Your task to perform on an android device: Open Youtube and go to "Your channel" Image 0: 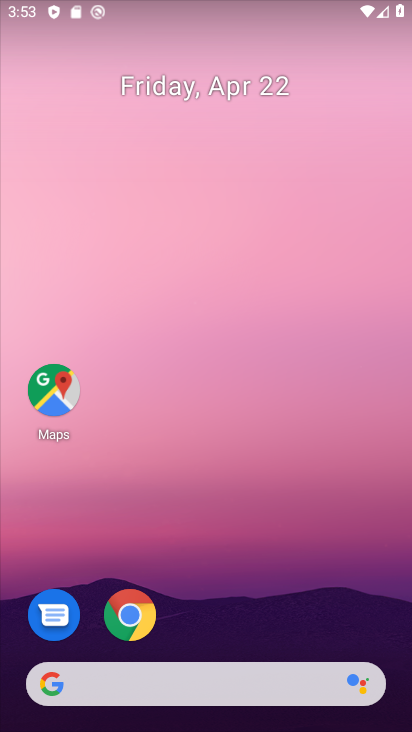
Step 0: drag from (304, 598) to (329, 183)
Your task to perform on an android device: Open Youtube and go to "Your channel" Image 1: 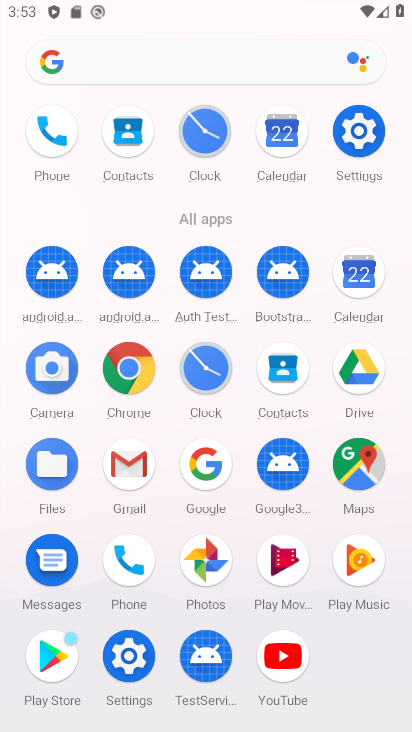
Step 1: click (286, 670)
Your task to perform on an android device: Open Youtube and go to "Your channel" Image 2: 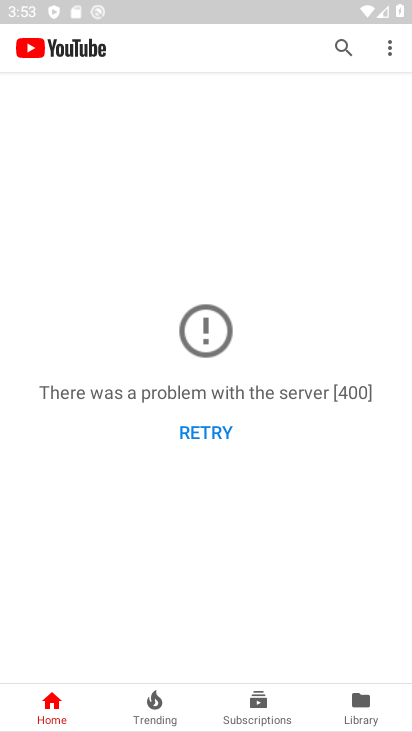
Step 2: click (387, 59)
Your task to perform on an android device: Open Youtube and go to "Your channel" Image 3: 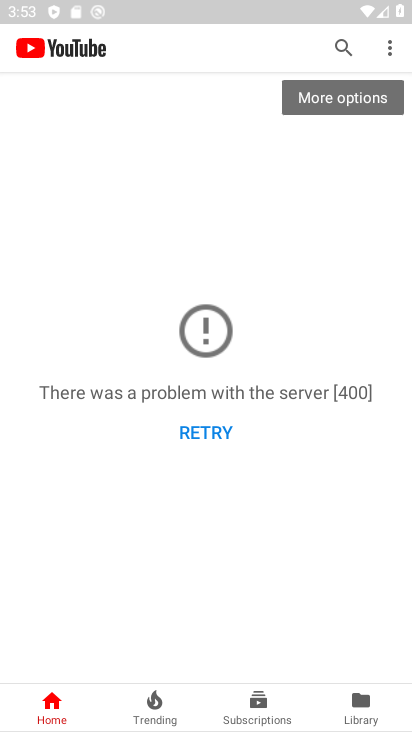
Step 3: click (392, 48)
Your task to perform on an android device: Open Youtube and go to "Your channel" Image 4: 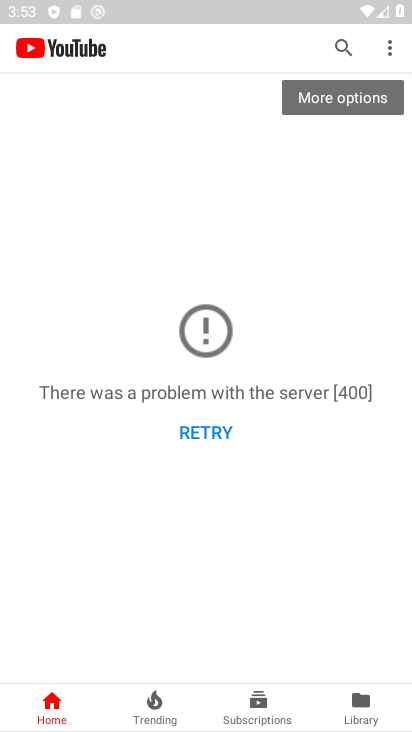
Step 4: click (390, 56)
Your task to perform on an android device: Open Youtube and go to "Your channel" Image 5: 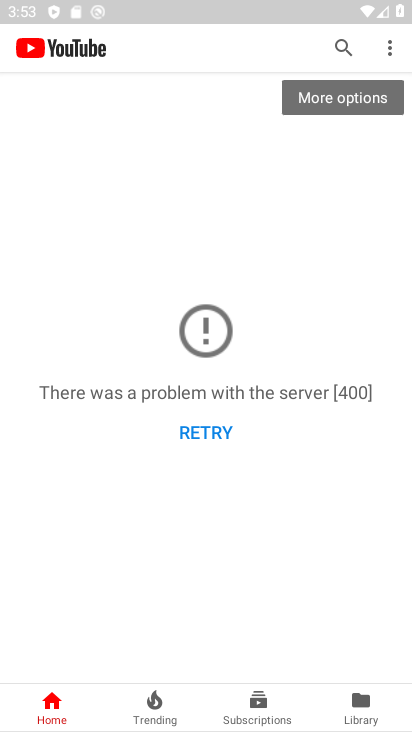
Step 5: click (390, 56)
Your task to perform on an android device: Open Youtube and go to "Your channel" Image 6: 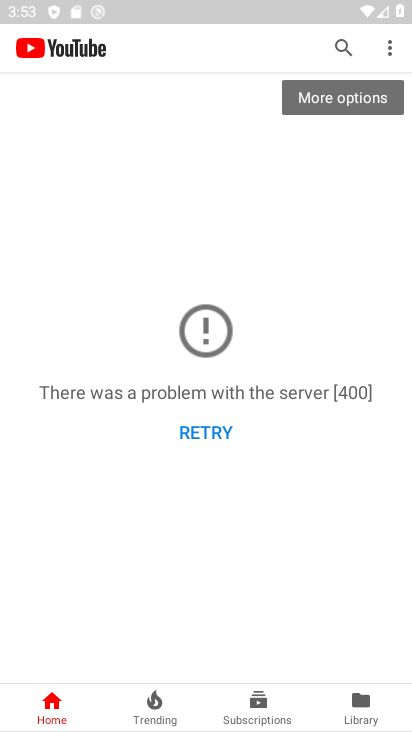
Step 6: click (390, 56)
Your task to perform on an android device: Open Youtube and go to "Your channel" Image 7: 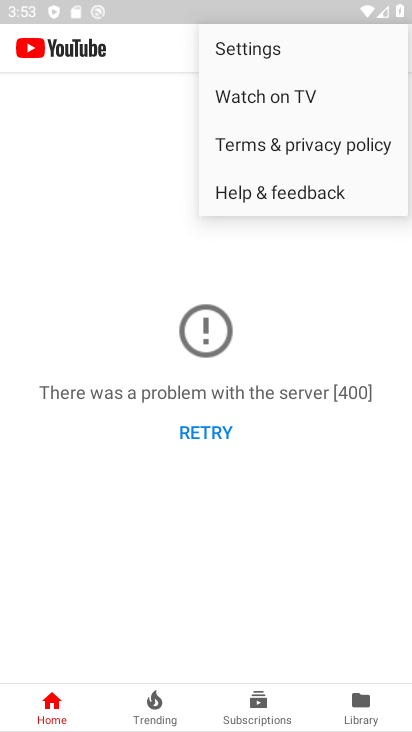
Step 7: click (272, 51)
Your task to perform on an android device: Open Youtube and go to "Your channel" Image 8: 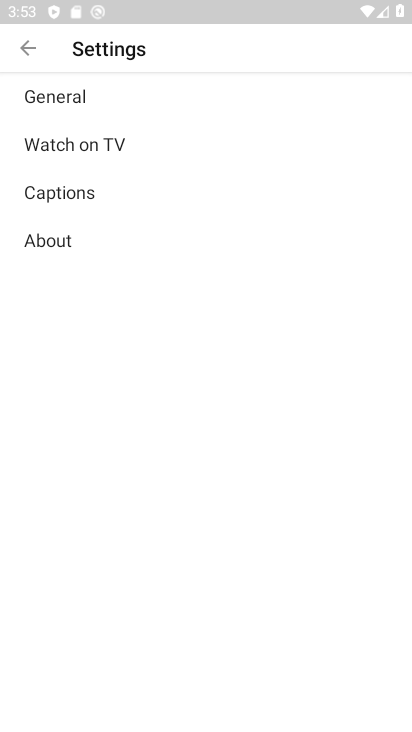
Step 8: task complete